Your task to perform on an android device: Go to Amazon Image 0: 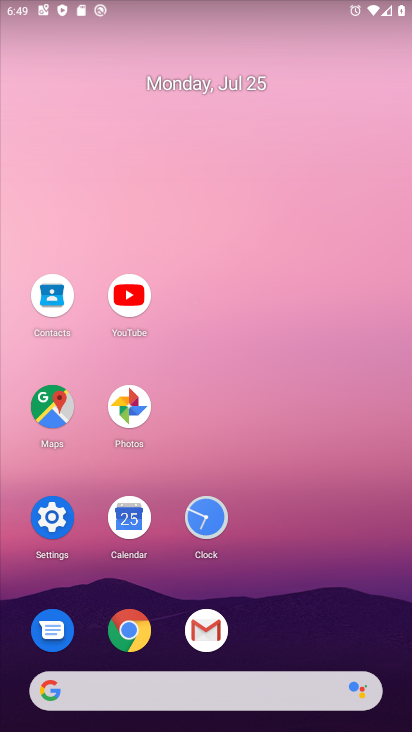
Step 0: click (130, 629)
Your task to perform on an android device: Go to Amazon Image 1: 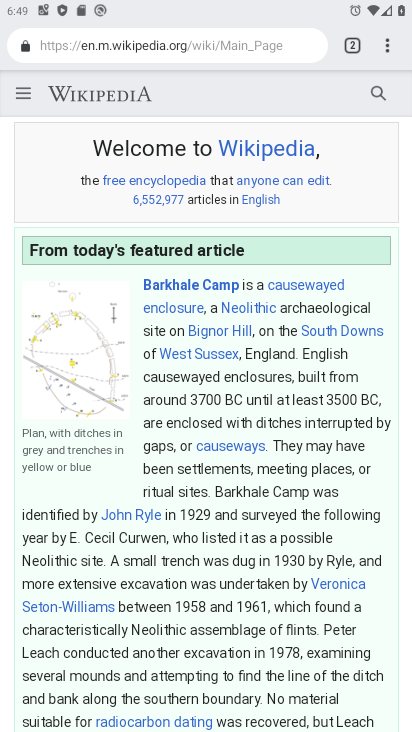
Step 1: click (386, 42)
Your task to perform on an android device: Go to Amazon Image 2: 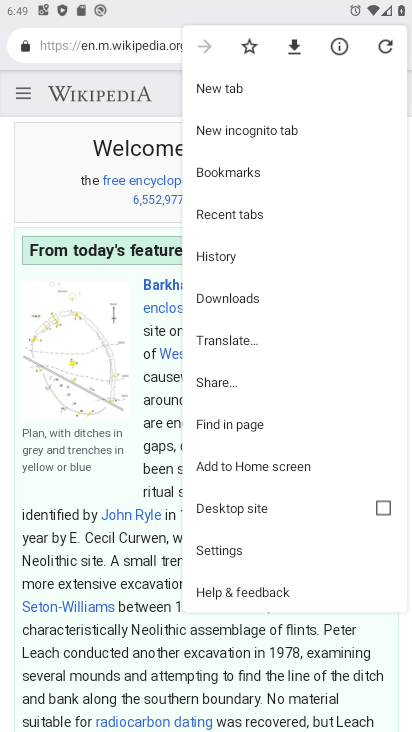
Step 2: click (226, 91)
Your task to perform on an android device: Go to Amazon Image 3: 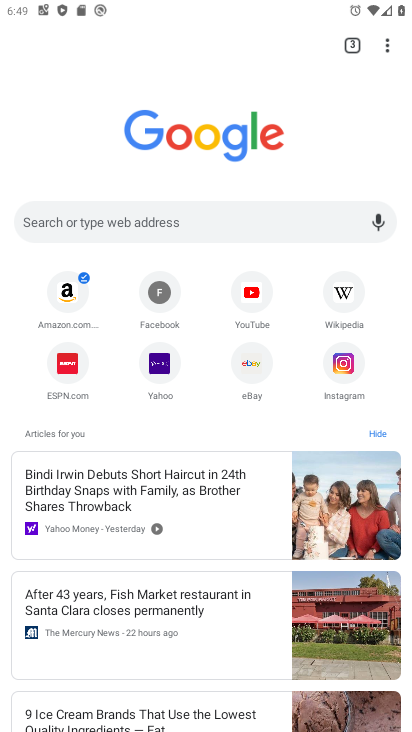
Step 3: click (63, 278)
Your task to perform on an android device: Go to Amazon Image 4: 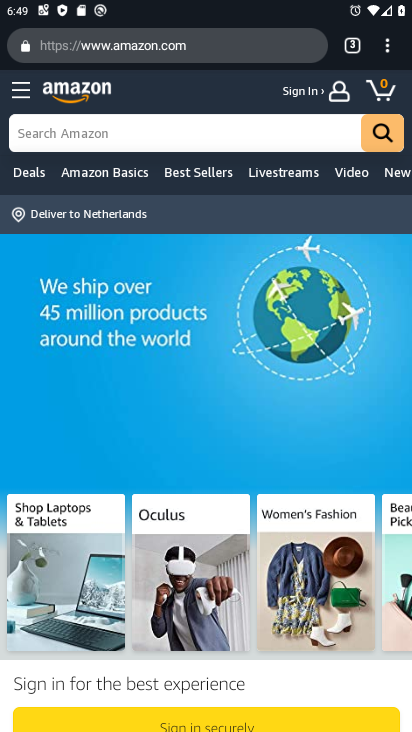
Step 4: task complete